Your task to perform on an android device: turn vacation reply on in the gmail app Image 0: 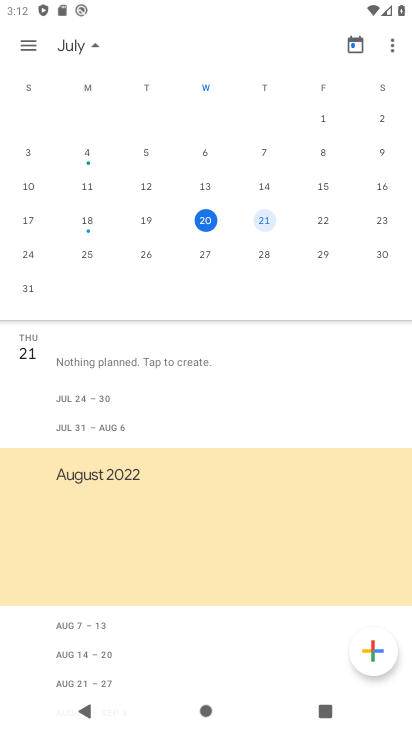
Step 0: press home button
Your task to perform on an android device: turn vacation reply on in the gmail app Image 1: 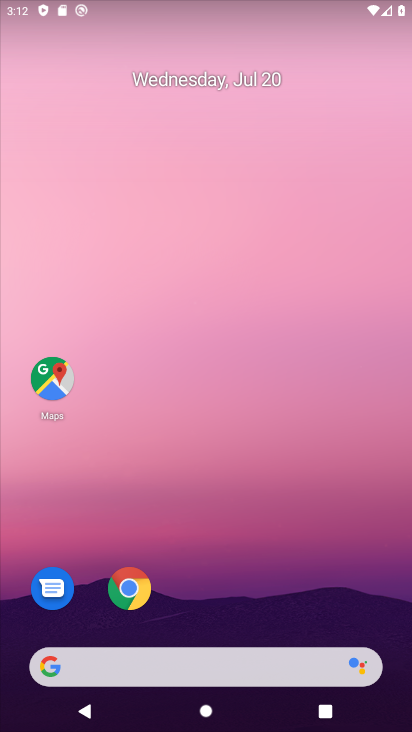
Step 1: drag from (293, 591) to (245, 82)
Your task to perform on an android device: turn vacation reply on in the gmail app Image 2: 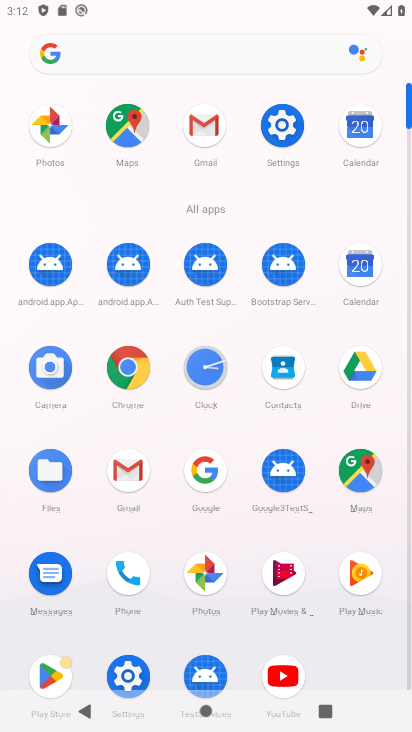
Step 2: click (204, 137)
Your task to perform on an android device: turn vacation reply on in the gmail app Image 3: 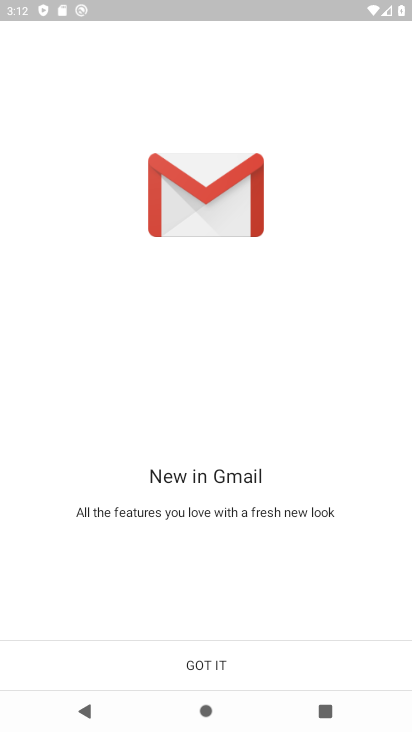
Step 3: click (245, 671)
Your task to perform on an android device: turn vacation reply on in the gmail app Image 4: 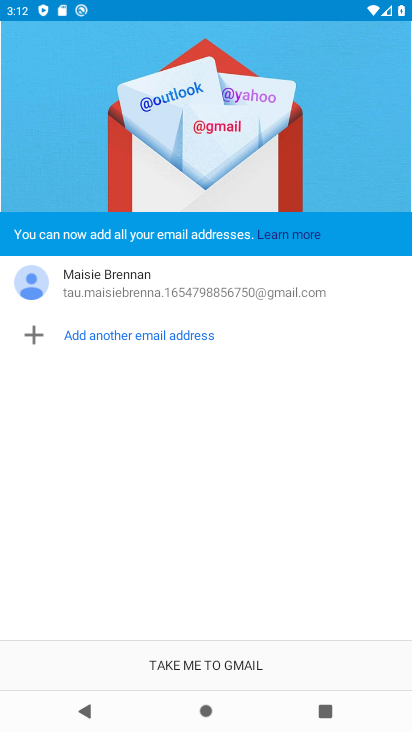
Step 4: click (232, 653)
Your task to perform on an android device: turn vacation reply on in the gmail app Image 5: 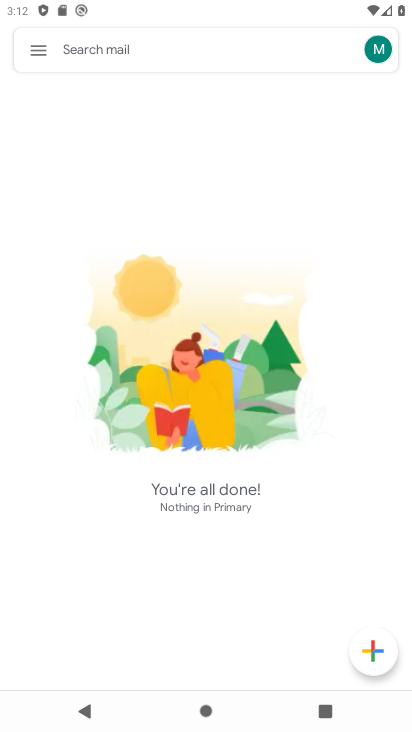
Step 5: click (39, 54)
Your task to perform on an android device: turn vacation reply on in the gmail app Image 6: 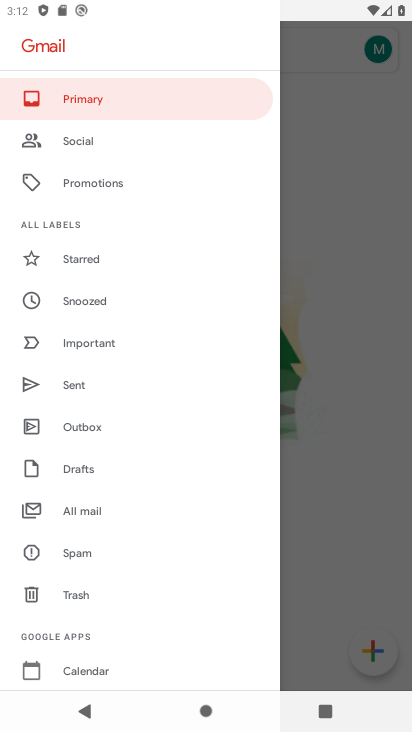
Step 6: drag from (68, 661) to (141, 245)
Your task to perform on an android device: turn vacation reply on in the gmail app Image 7: 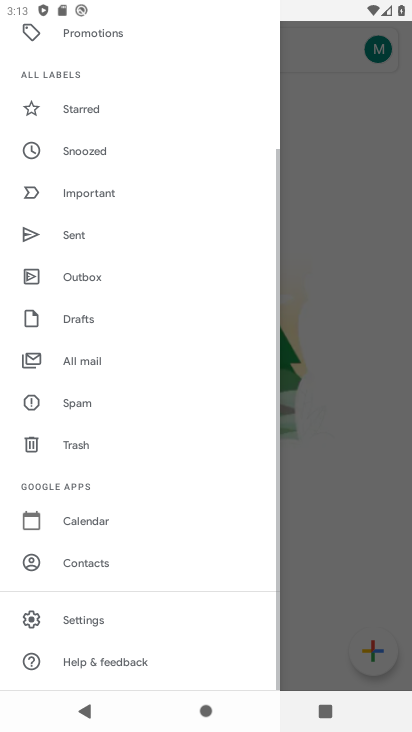
Step 7: click (97, 625)
Your task to perform on an android device: turn vacation reply on in the gmail app Image 8: 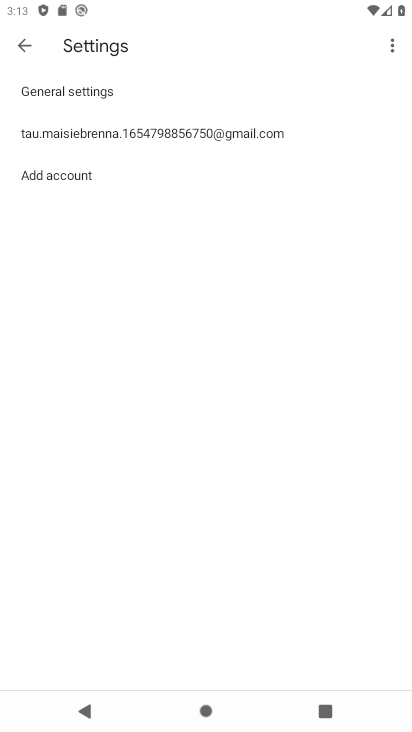
Step 8: click (205, 125)
Your task to perform on an android device: turn vacation reply on in the gmail app Image 9: 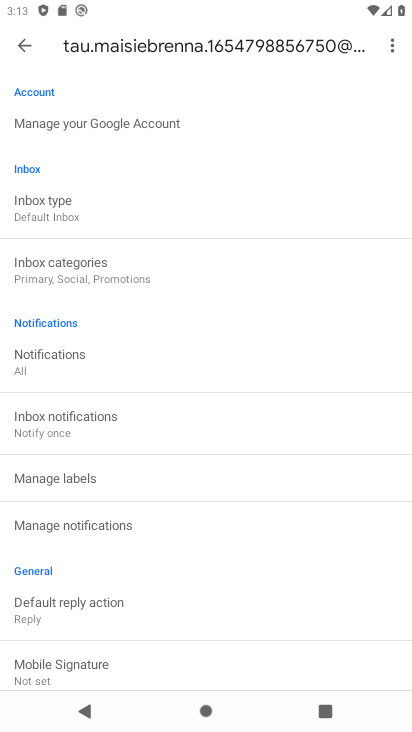
Step 9: drag from (134, 622) to (205, 151)
Your task to perform on an android device: turn vacation reply on in the gmail app Image 10: 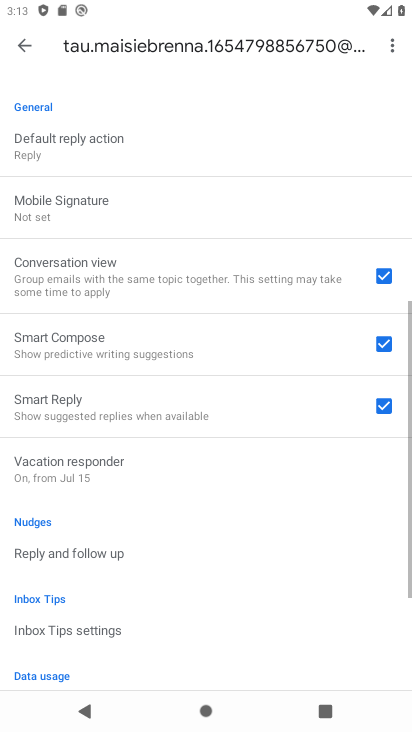
Step 10: click (146, 467)
Your task to perform on an android device: turn vacation reply on in the gmail app Image 11: 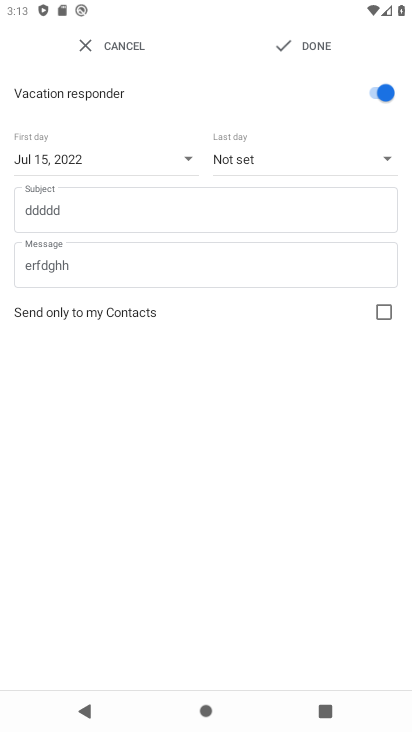
Step 11: task complete